Your task to perform on an android device: toggle notifications settings in the gmail app Image 0: 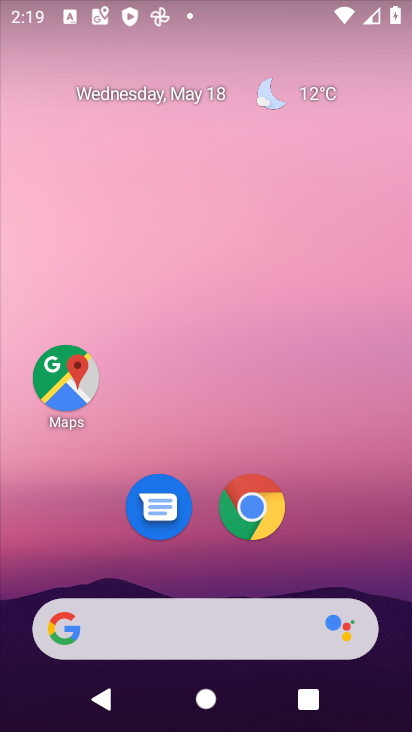
Step 0: drag from (394, 620) to (341, 95)
Your task to perform on an android device: toggle notifications settings in the gmail app Image 1: 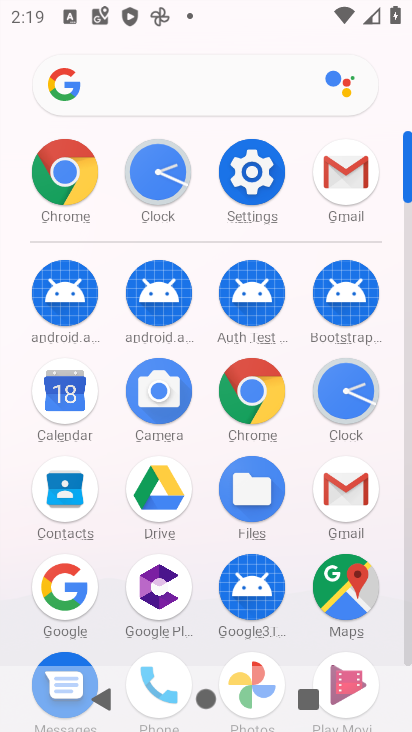
Step 1: click (407, 619)
Your task to perform on an android device: toggle notifications settings in the gmail app Image 2: 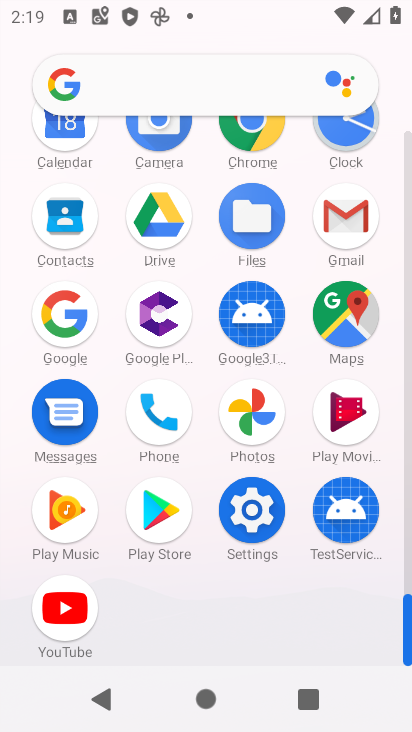
Step 2: click (345, 211)
Your task to perform on an android device: toggle notifications settings in the gmail app Image 3: 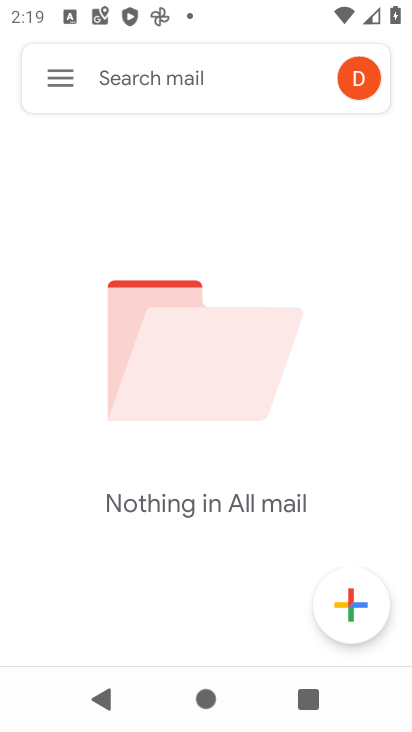
Step 3: click (50, 72)
Your task to perform on an android device: toggle notifications settings in the gmail app Image 4: 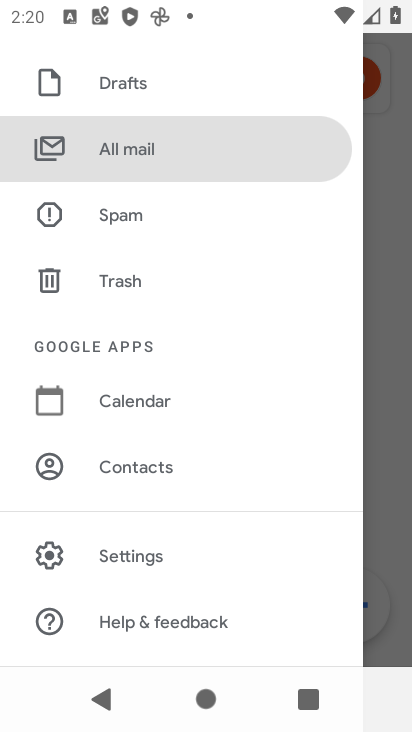
Step 4: click (141, 549)
Your task to perform on an android device: toggle notifications settings in the gmail app Image 5: 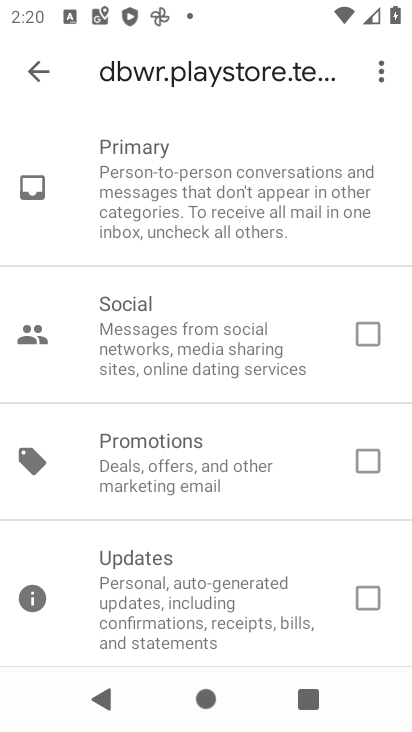
Step 5: press back button
Your task to perform on an android device: toggle notifications settings in the gmail app Image 6: 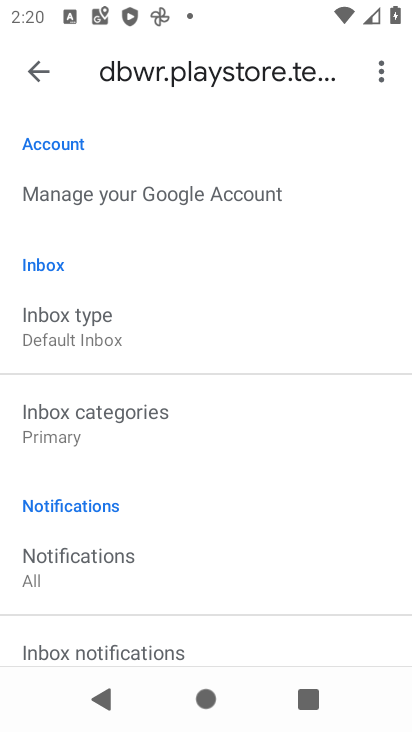
Step 6: drag from (235, 618) to (250, 245)
Your task to perform on an android device: toggle notifications settings in the gmail app Image 7: 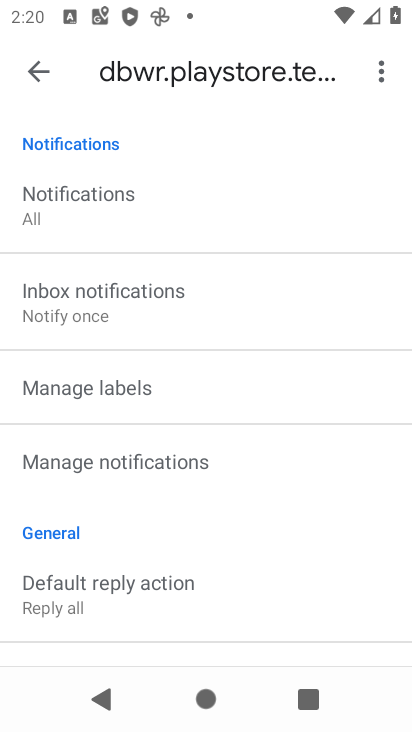
Step 7: click (181, 465)
Your task to perform on an android device: toggle notifications settings in the gmail app Image 8: 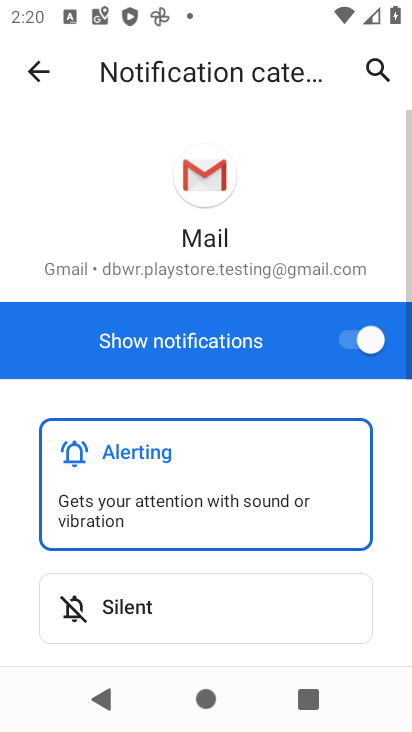
Step 8: click (338, 336)
Your task to perform on an android device: toggle notifications settings in the gmail app Image 9: 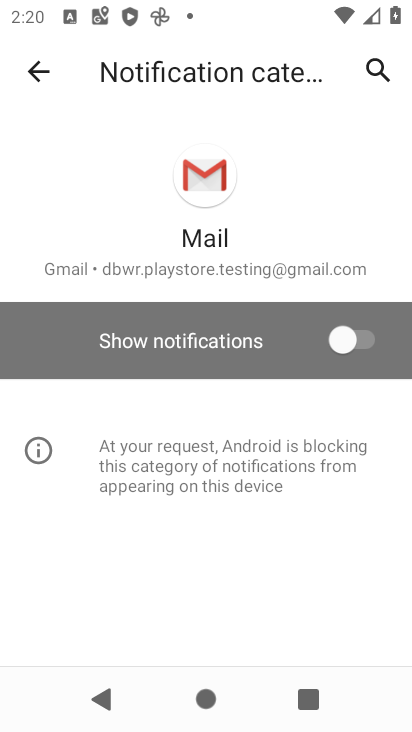
Step 9: task complete